Your task to perform on an android device: turn on data saver in the chrome app Image 0: 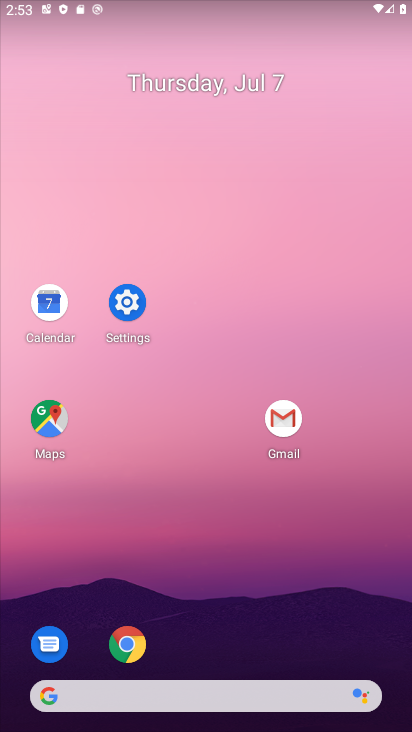
Step 0: click (127, 637)
Your task to perform on an android device: turn on data saver in the chrome app Image 1: 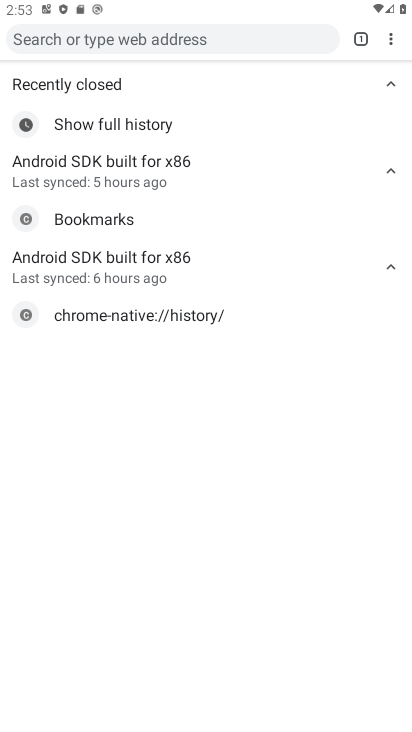
Step 1: click (385, 38)
Your task to perform on an android device: turn on data saver in the chrome app Image 2: 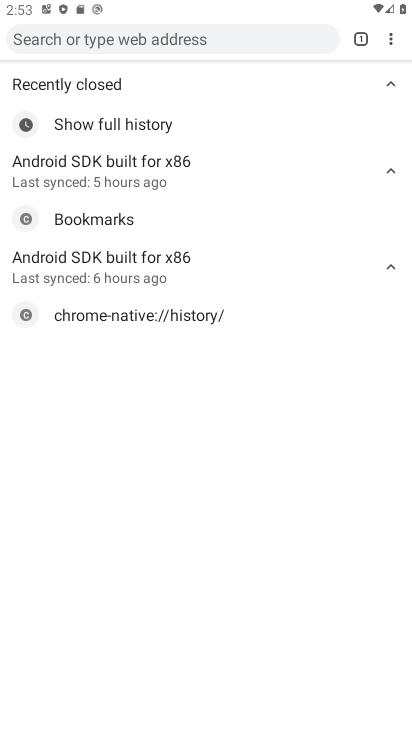
Step 2: click (389, 38)
Your task to perform on an android device: turn on data saver in the chrome app Image 3: 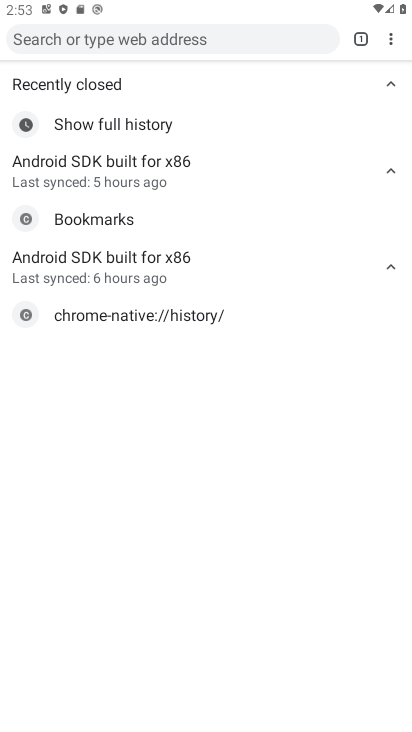
Step 3: click (389, 38)
Your task to perform on an android device: turn on data saver in the chrome app Image 4: 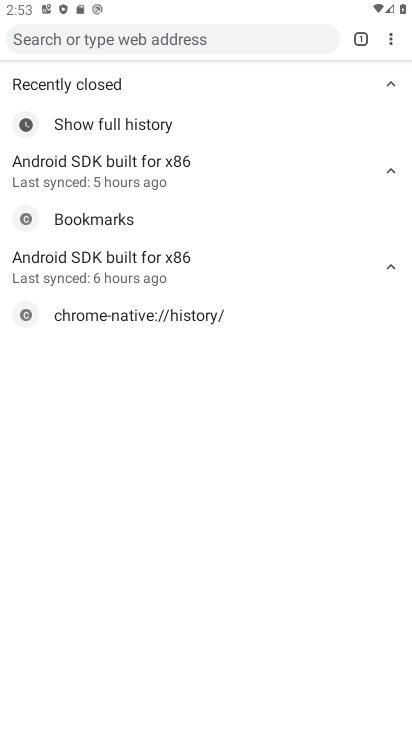
Step 4: click (389, 38)
Your task to perform on an android device: turn on data saver in the chrome app Image 5: 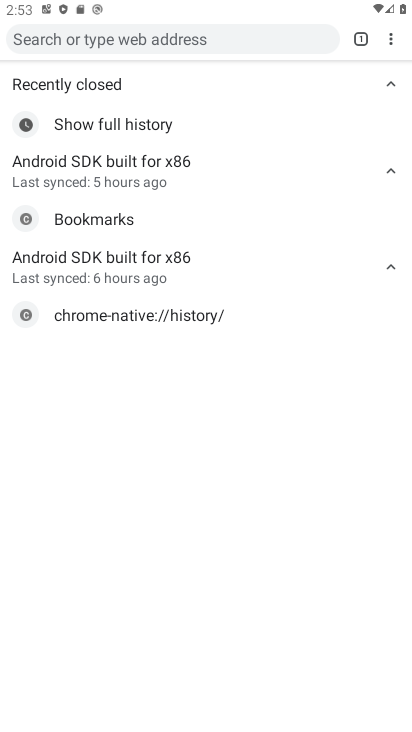
Step 5: click (389, 38)
Your task to perform on an android device: turn on data saver in the chrome app Image 6: 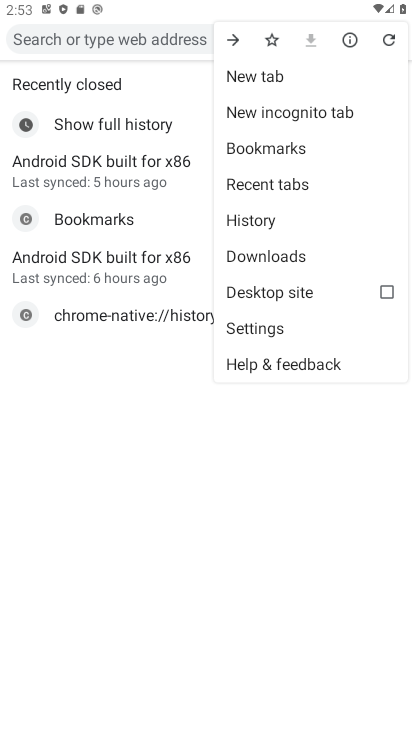
Step 6: click (276, 323)
Your task to perform on an android device: turn on data saver in the chrome app Image 7: 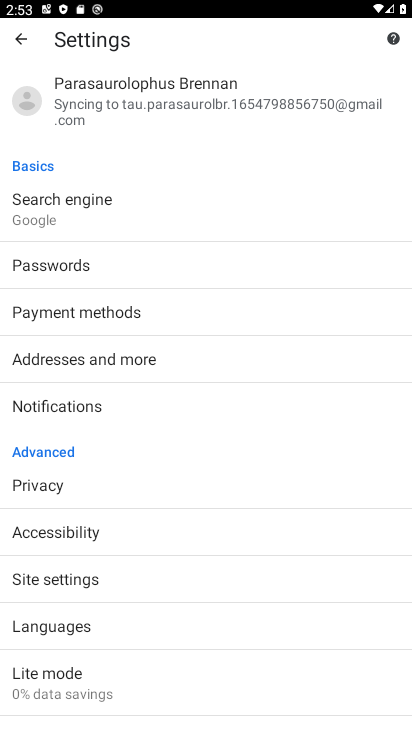
Step 7: drag from (188, 692) to (213, 279)
Your task to perform on an android device: turn on data saver in the chrome app Image 8: 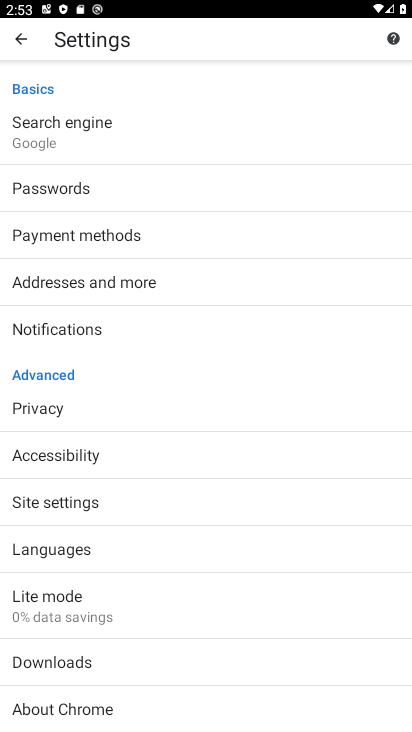
Step 8: click (59, 591)
Your task to perform on an android device: turn on data saver in the chrome app Image 9: 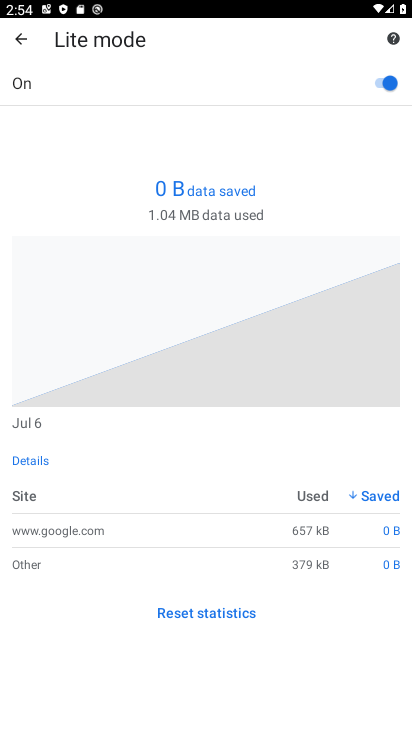
Step 9: task complete